Your task to perform on an android device: turn off picture-in-picture Image 0: 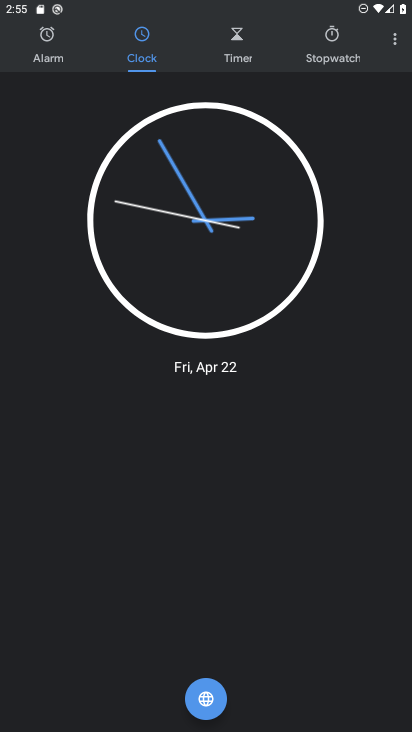
Step 0: press home button
Your task to perform on an android device: turn off picture-in-picture Image 1: 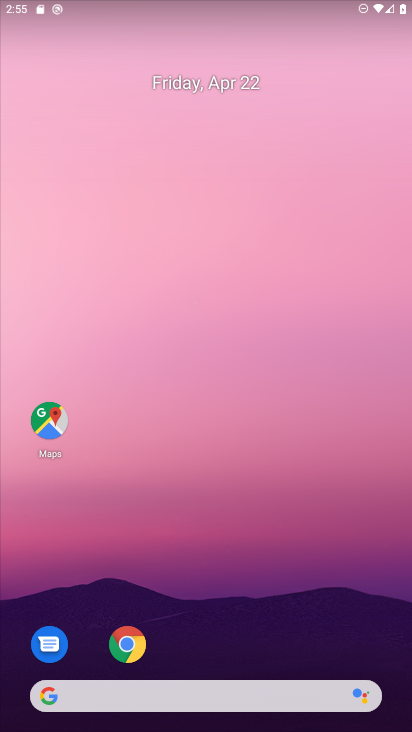
Step 1: click (128, 642)
Your task to perform on an android device: turn off picture-in-picture Image 2: 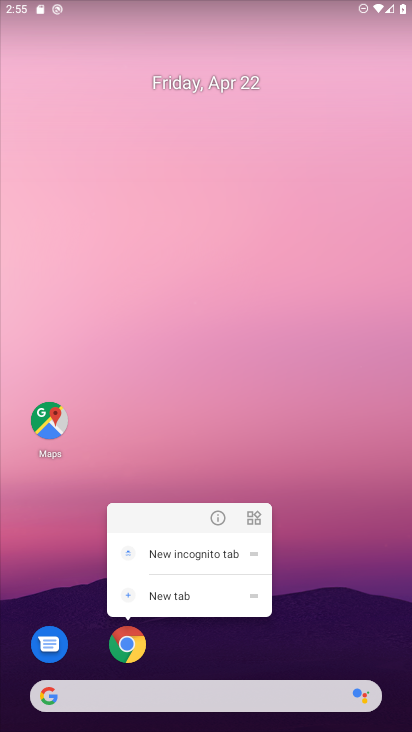
Step 2: click (212, 510)
Your task to perform on an android device: turn off picture-in-picture Image 3: 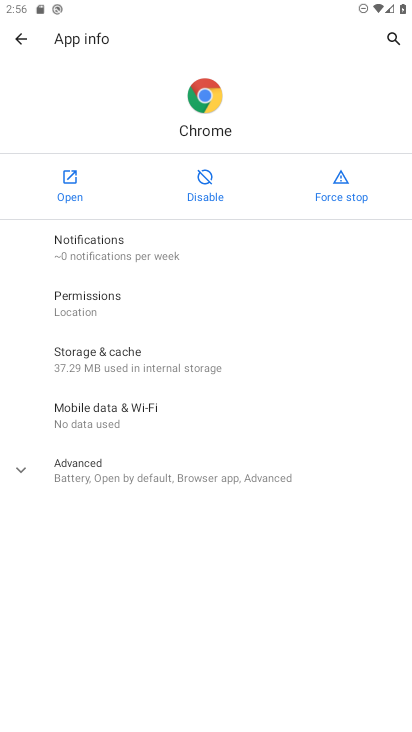
Step 3: click (137, 479)
Your task to perform on an android device: turn off picture-in-picture Image 4: 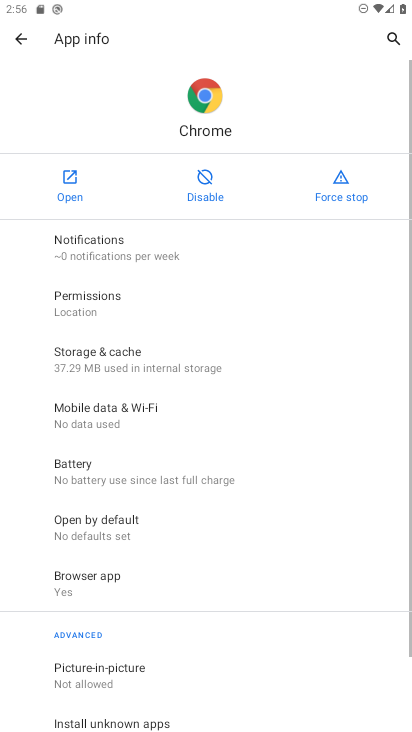
Step 4: drag from (266, 657) to (317, 292)
Your task to perform on an android device: turn off picture-in-picture Image 5: 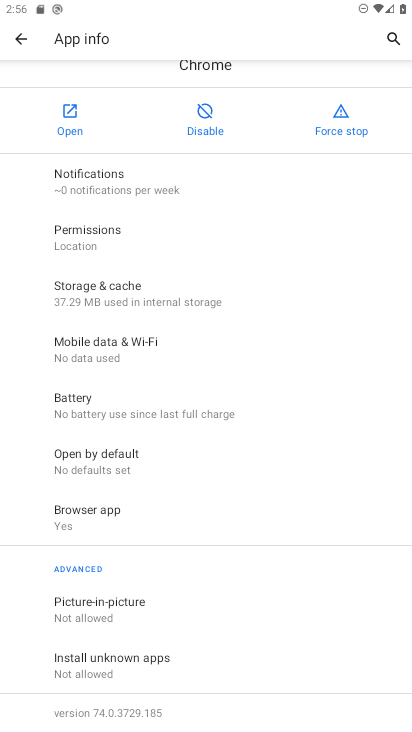
Step 5: click (74, 598)
Your task to perform on an android device: turn off picture-in-picture Image 6: 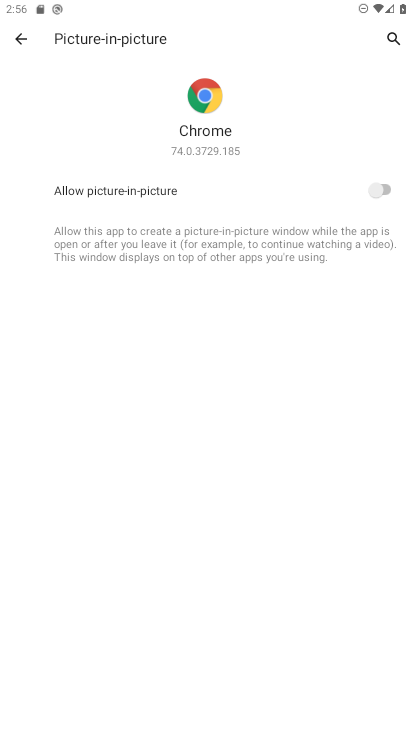
Step 6: task complete